Your task to perform on an android device: check google app version Image 0: 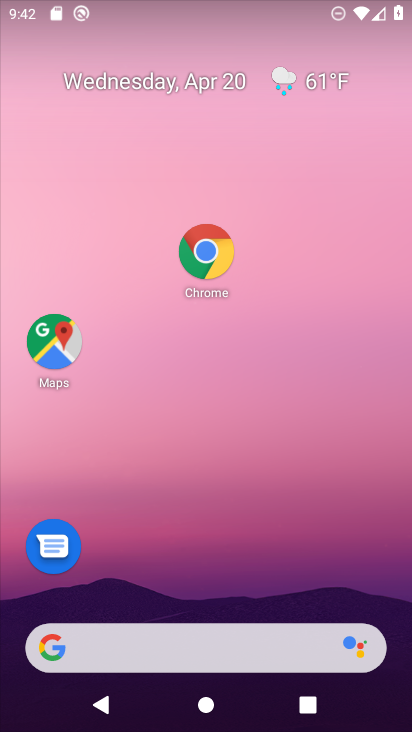
Step 0: drag from (201, 593) to (234, 186)
Your task to perform on an android device: check google app version Image 1: 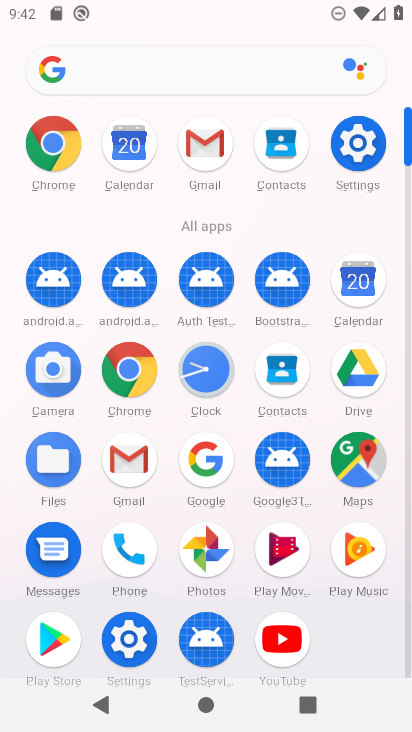
Step 1: click (134, 557)
Your task to perform on an android device: check google app version Image 2: 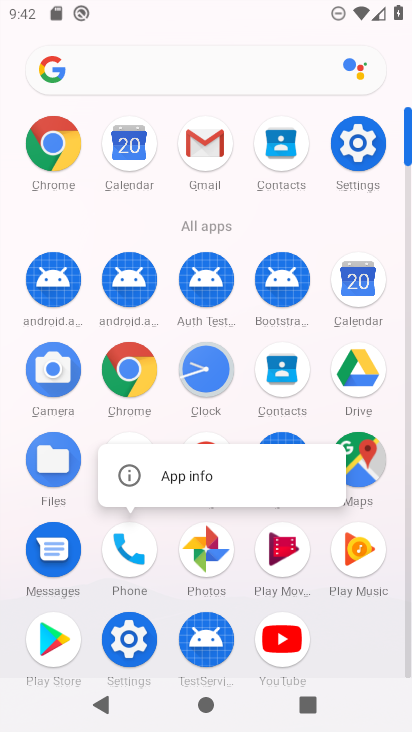
Step 2: click (202, 442)
Your task to perform on an android device: check google app version Image 3: 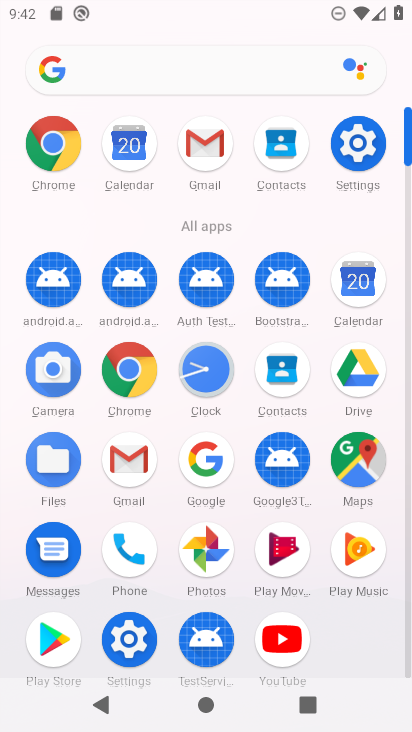
Step 3: click (214, 466)
Your task to perform on an android device: check google app version Image 4: 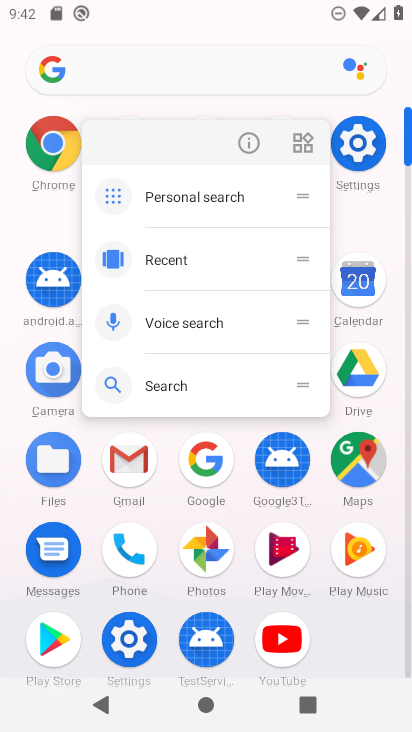
Step 4: click (252, 140)
Your task to perform on an android device: check google app version Image 5: 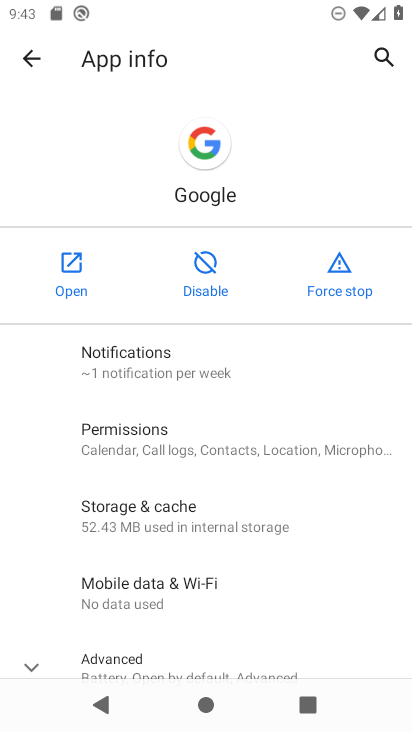
Step 5: drag from (123, 665) to (124, 407)
Your task to perform on an android device: check google app version Image 6: 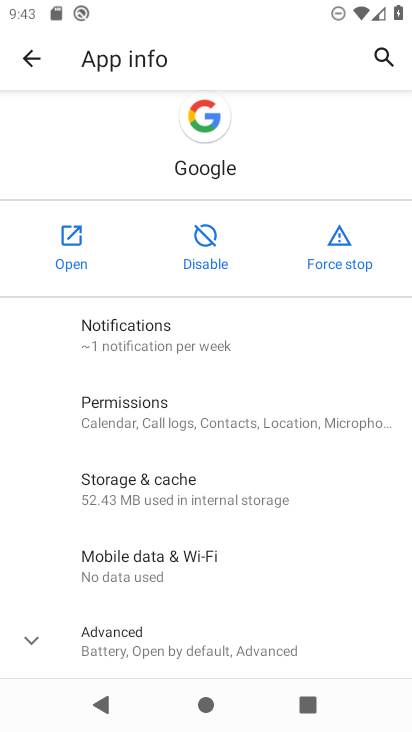
Step 6: click (160, 646)
Your task to perform on an android device: check google app version Image 7: 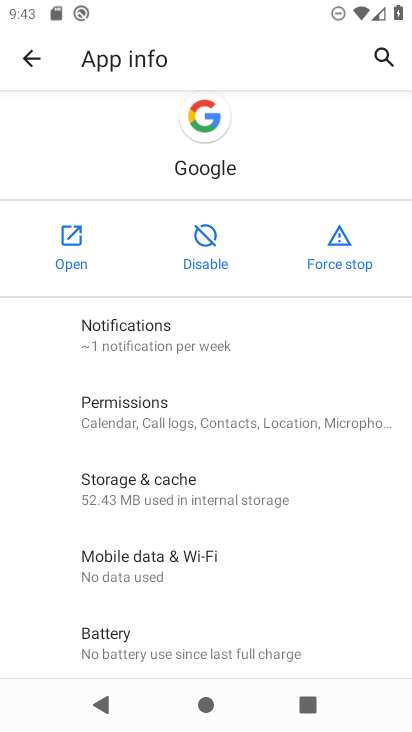
Step 7: task complete